Your task to perform on an android device: turn off improve location accuracy Image 0: 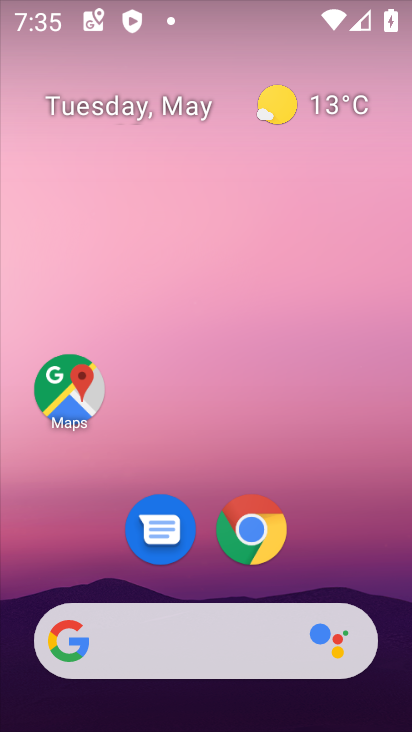
Step 0: drag from (313, 547) to (161, 138)
Your task to perform on an android device: turn off improve location accuracy Image 1: 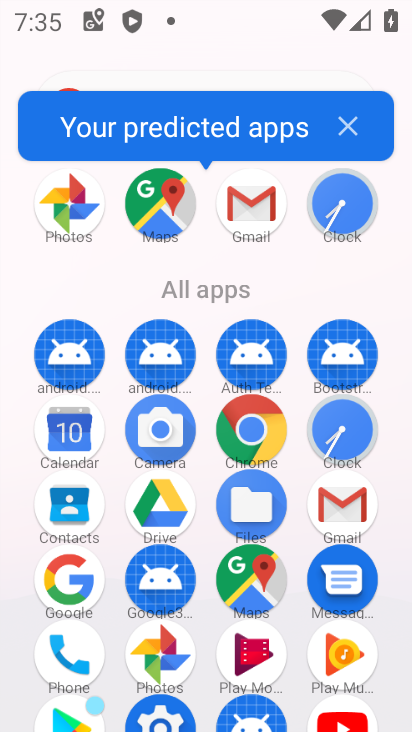
Step 1: click (353, 125)
Your task to perform on an android device: turn off improve location accuracy Image 2: 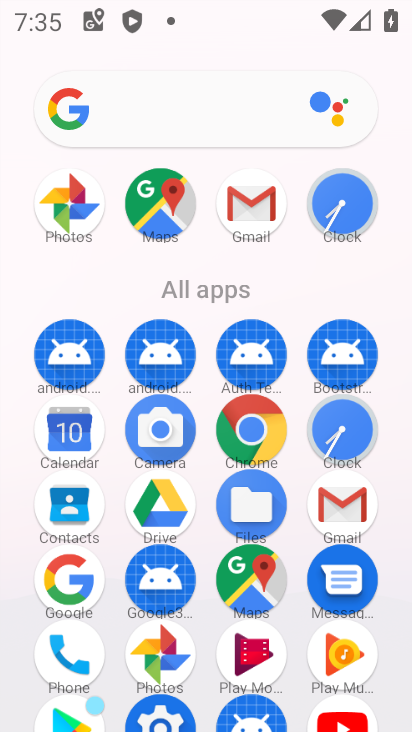
Step 2: drag from (383, 596) to (379, 330)
Your task to perform on an android device: turn off improve location accuracy Image 3: 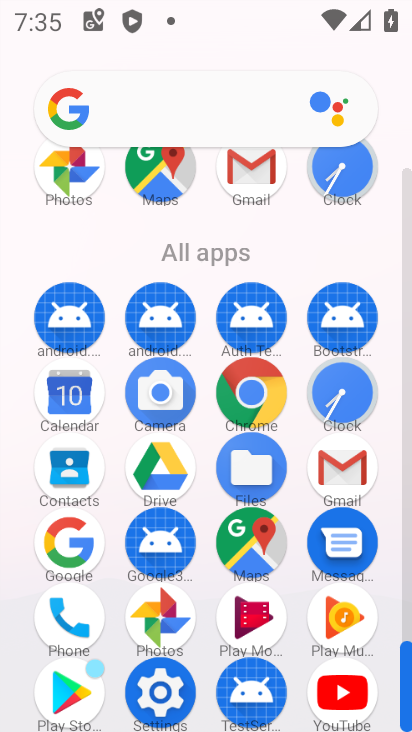
Step 3: click (171, 688)
Your task to perform on an android device: turn off improve location accuracy Image 4: 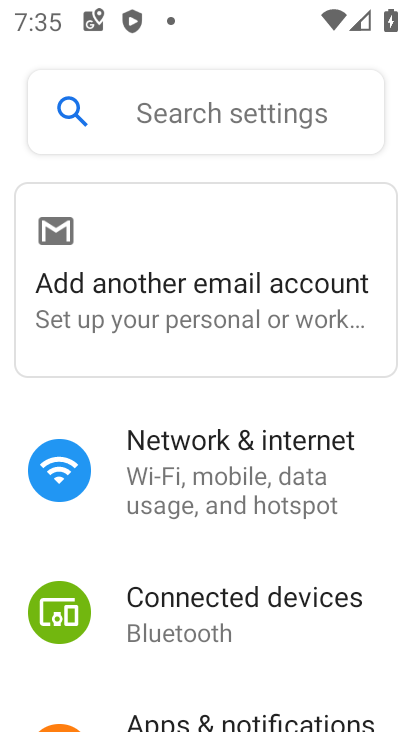
Step 4: drag from (392, 658) to (405, 383)
Your task to perform on an android device: turn off improve location accuracy Image 5: 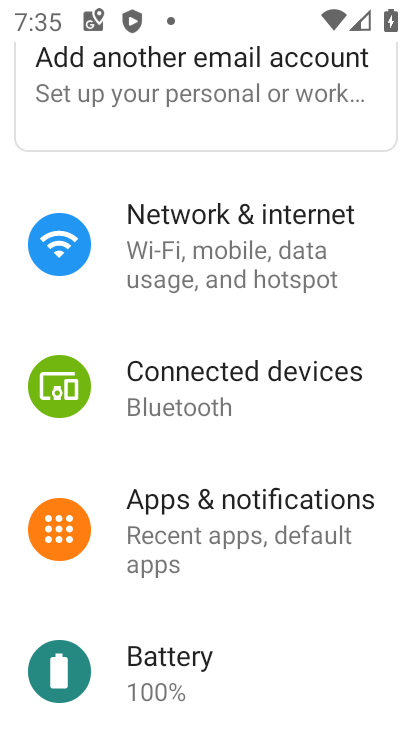
Step 5: drag from (289, 616) to (285, 402)
Your task to perform on an android device: turn off improve location accuracy Image 6: 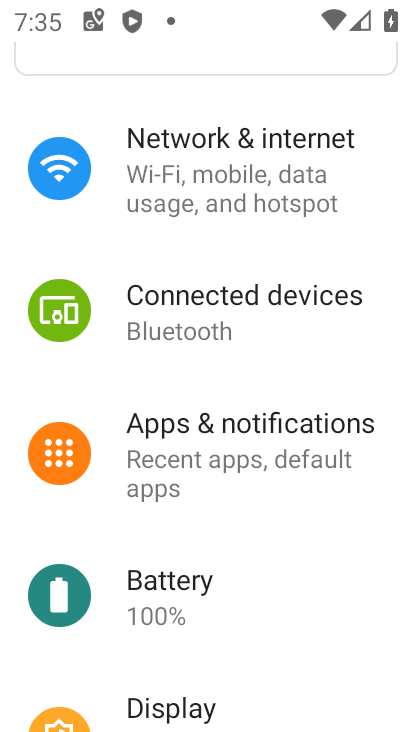
Step 6: drag from (229, 635) to (245, 320)
Your task to perform on an android device: turn off improve location accuracy Image 7: 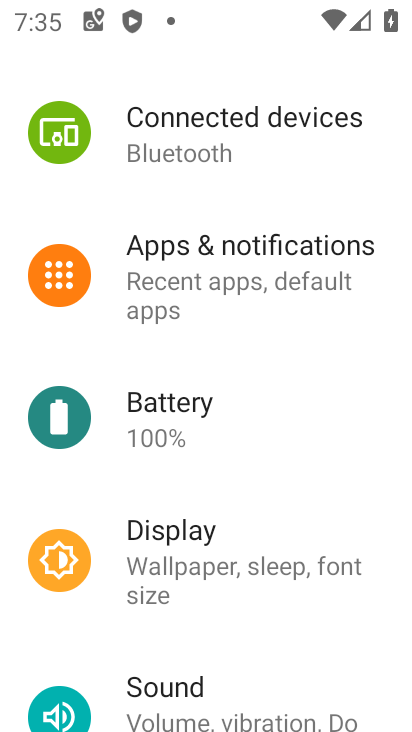
Step 7: drag from (183, 634) to (209, 366)
Your task to perform on an android device: turn off improve location accuracy Image 8: 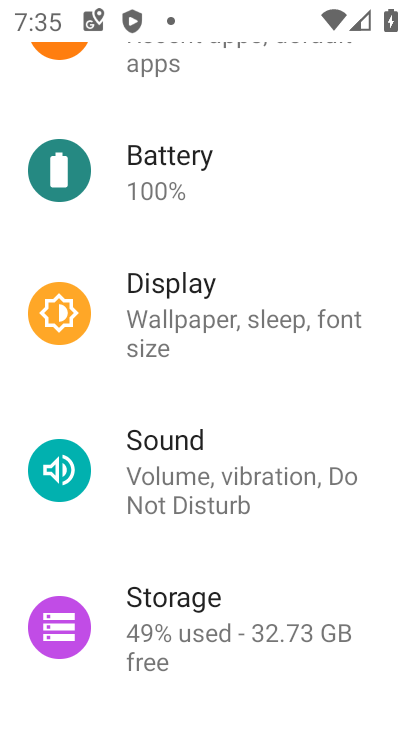
Step 8: drag from (186, 611) to (211, 521)
Your task to perform on an android device: turn off improve location accuracy Image 9: 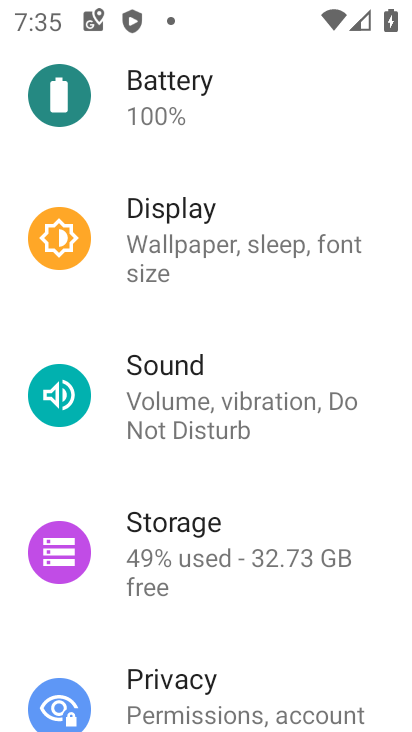
Step 9: drag from (191, 636) to (216, 344)
Your task to perform on an android device: turn off improve location accuracy Image 10: 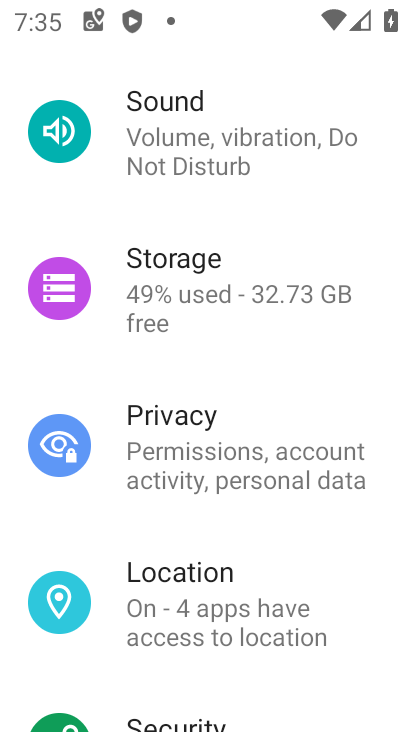
Step 10: click (207, 566)
Your task to perform on an android device: turn off improve location accuracy Image 11: 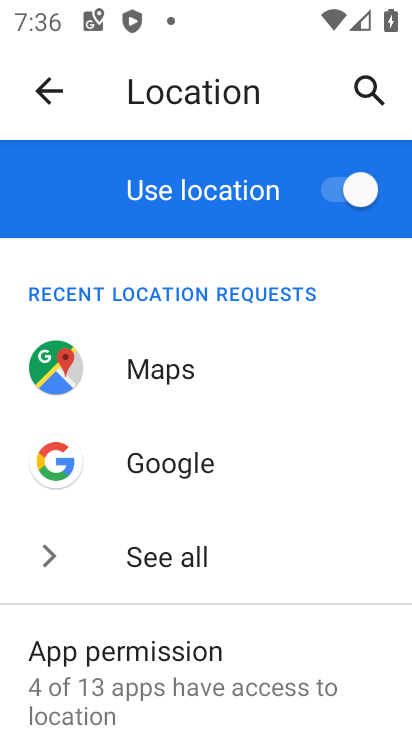
Step 11: drag from (295, 615) to (273, 272)
Your task to perform on an android device: turn off improve location accuracy Image 12: 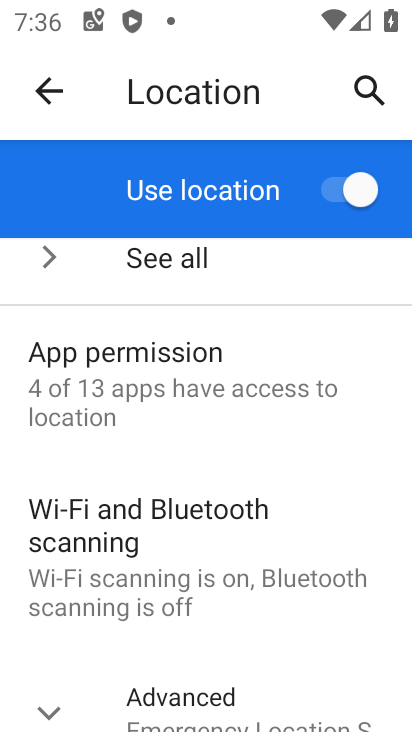
Step 12: click (248, 707)
Your task to perform on an android device: turn off improve location accuracy Image 13: 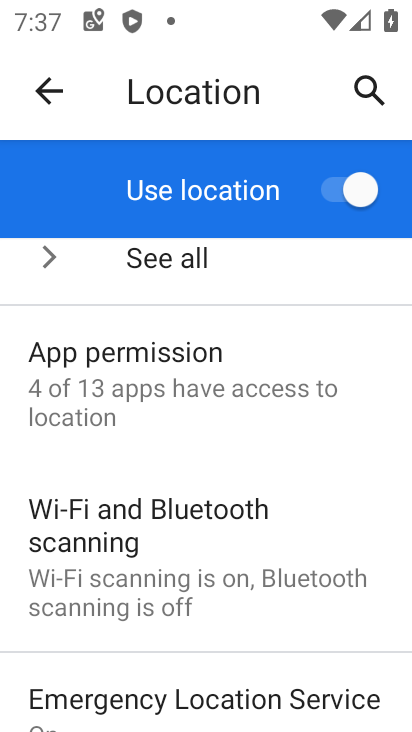
Step 13: drag from (261, 635) to (261, 598)
Your task to perform on an android device: turn off improve location accuracy Image 14: 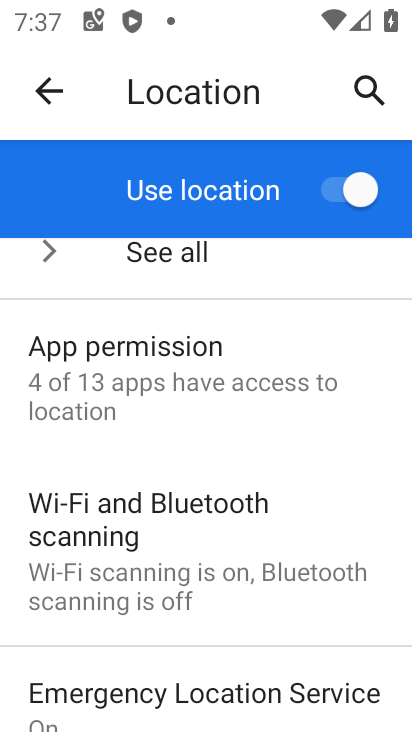
Step 14: click (255, 349)
Your task to perform on an android device: turn off improve location accuracy Image 15: 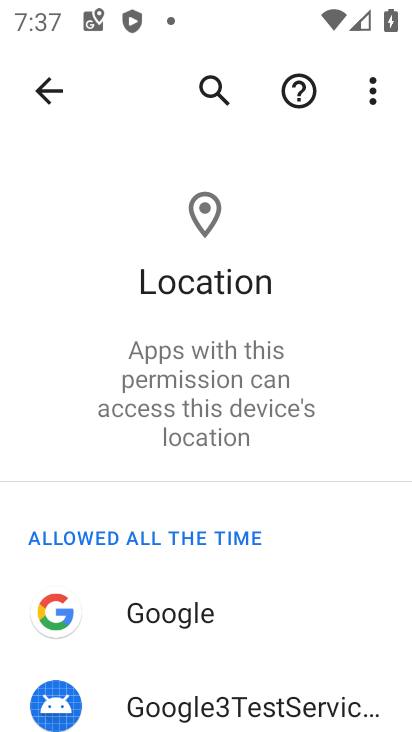
Step 15: click (41, 74)
Your task to perform on an android device: turn off improve location accuracy Image 16: 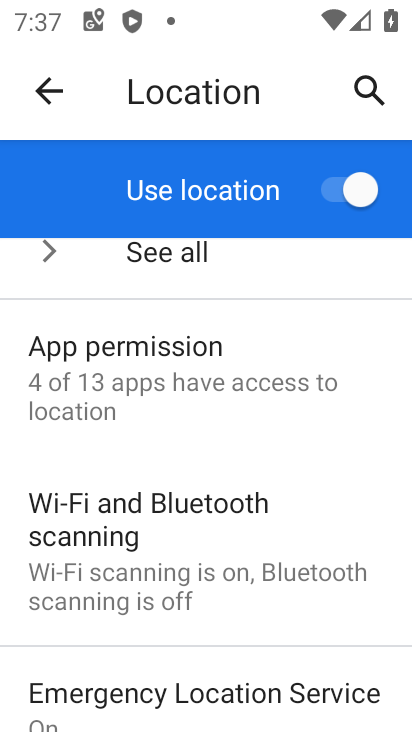
Step 16: drag from (234, 596) to (237, 487)
Your task to perform on an android device: turn off improve location accuracy Image 17: 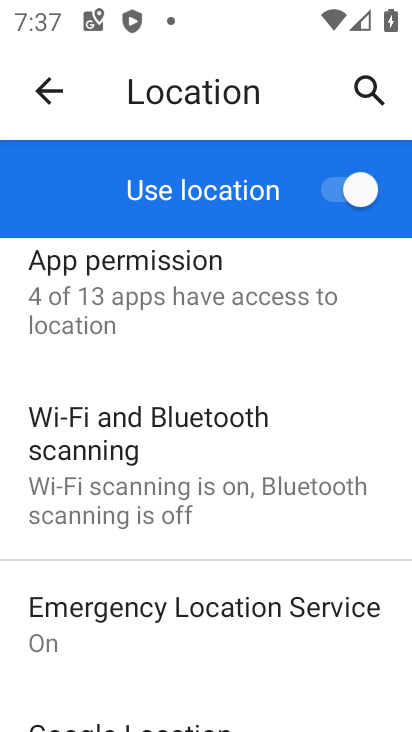
Step 17: drag from (259, 638) to (293, 88)
Your task to perform on an android device: turn off improve location accuracy Image 18: 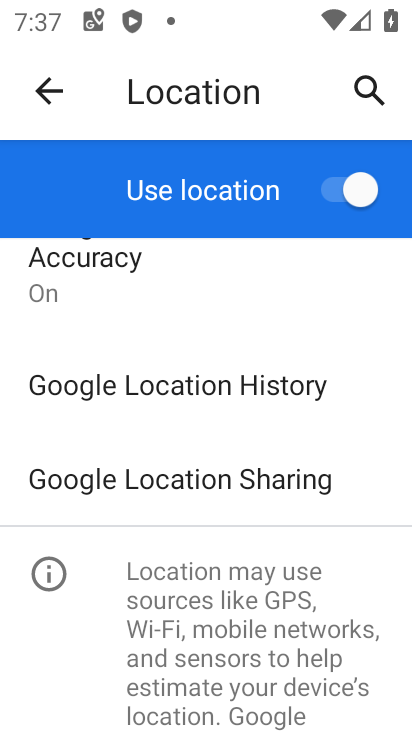
Step 18: click (320, 392)
Your task to perform on an android device: turn off improve location accuracy Image 19: 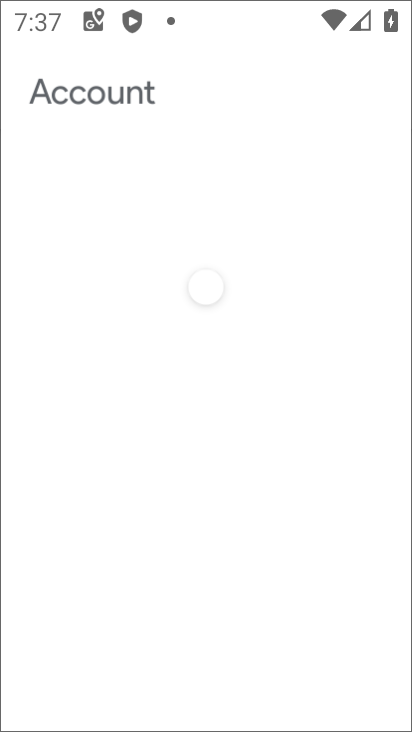
Step 19: click (54, 98)
Your task to perform on an android device: turn off improve location accuracy Image 20: 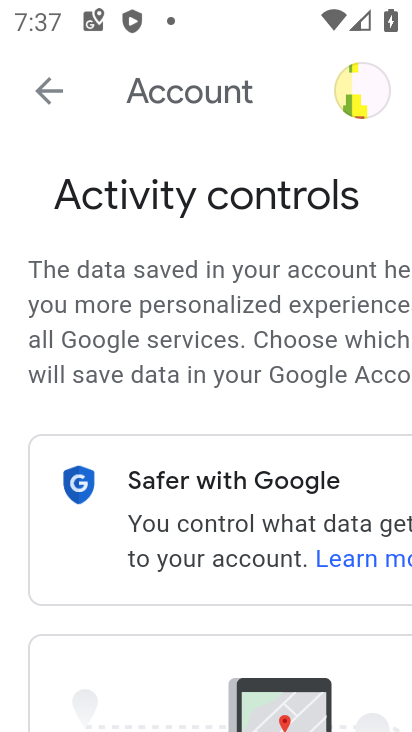
Step 20: click (54, 106)
Your task to perform on an android device: turn off improve location accuracy Image 21: 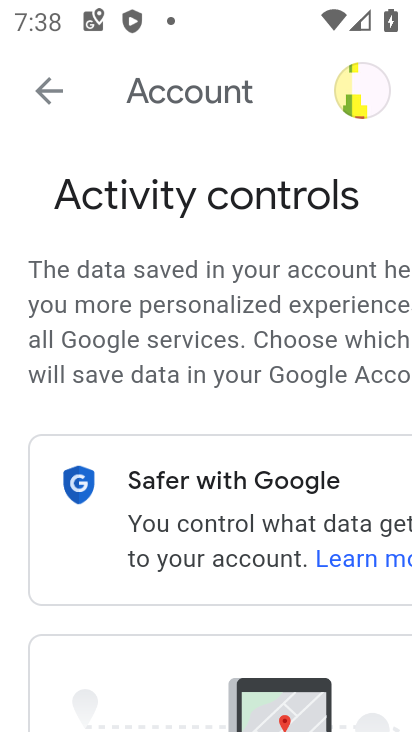
Step 21: click (44, 102)
Your task to perform on an android device: turn off improve location accuracy Image 22: 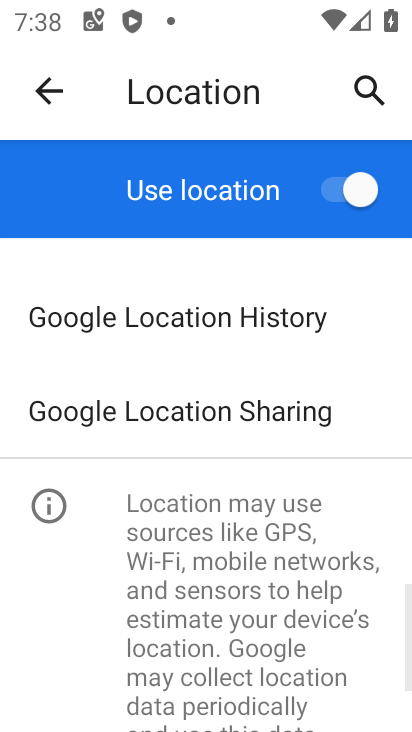
Step 22: task complete